Your task to perform on an android device: Search for pizza restaurants on Maps Image 0: 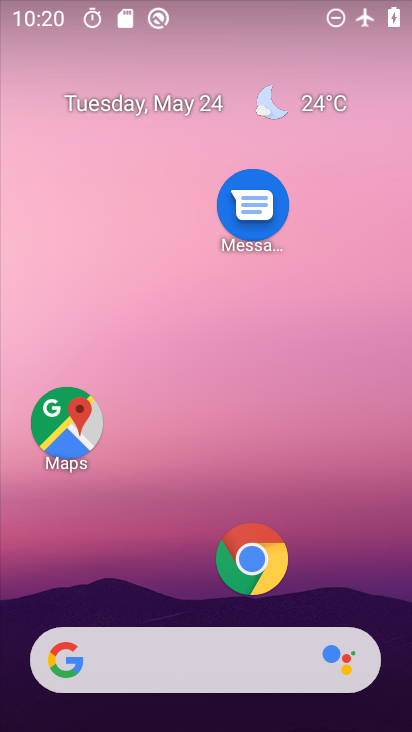
Step 0: click (77, 415)
Your task to perform on an android device: Search for pizza restaurants on Maps Image 1: 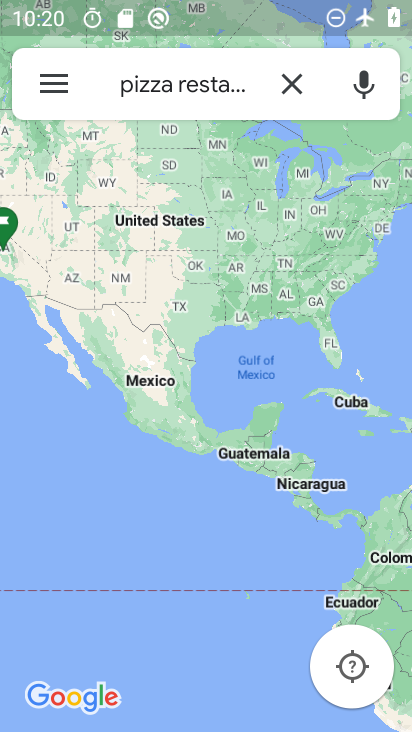
Step 1: task complete